Your task to perform on an android device: Open calendar and show me the fourth week of next month Image 0: 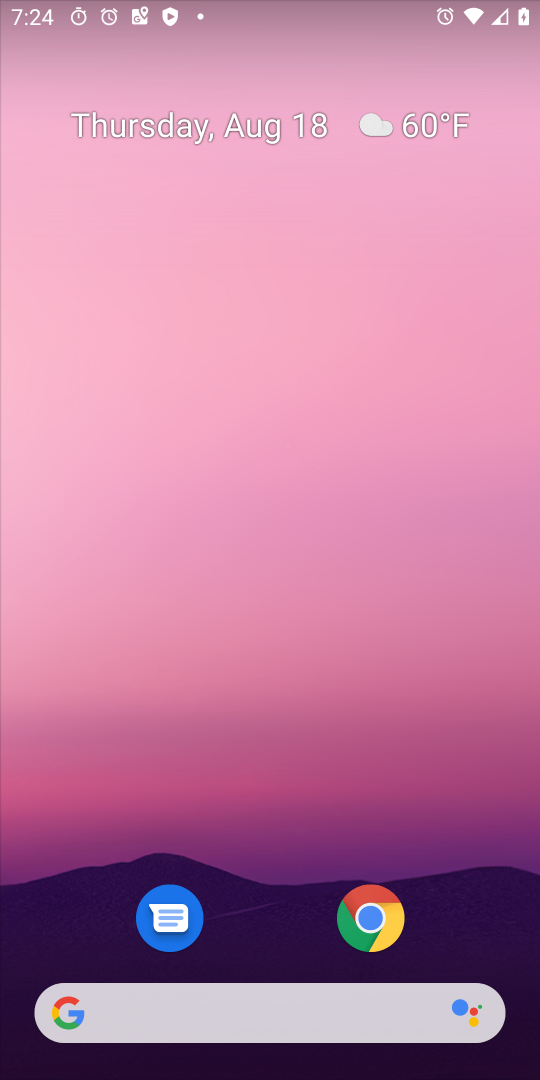
Step 0: press home button
Your task to perform on an android device: Open calendar and show me the fourth week of next month Image 1: 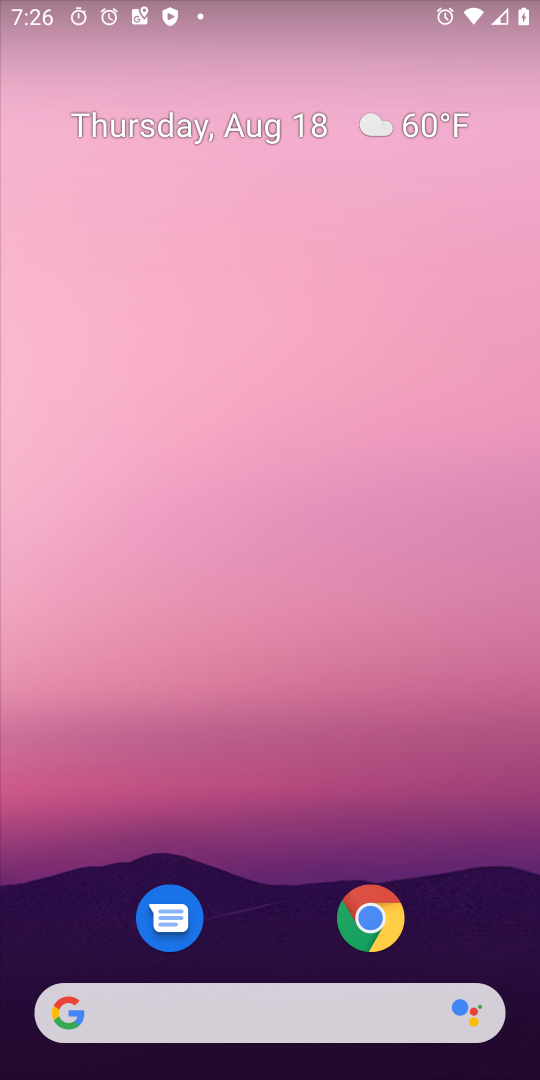
Step 1: drag from (268, 935) to (322, 57)
Your task to perform on an android device: Open calendar and show me the fourth week of next month Image 2: 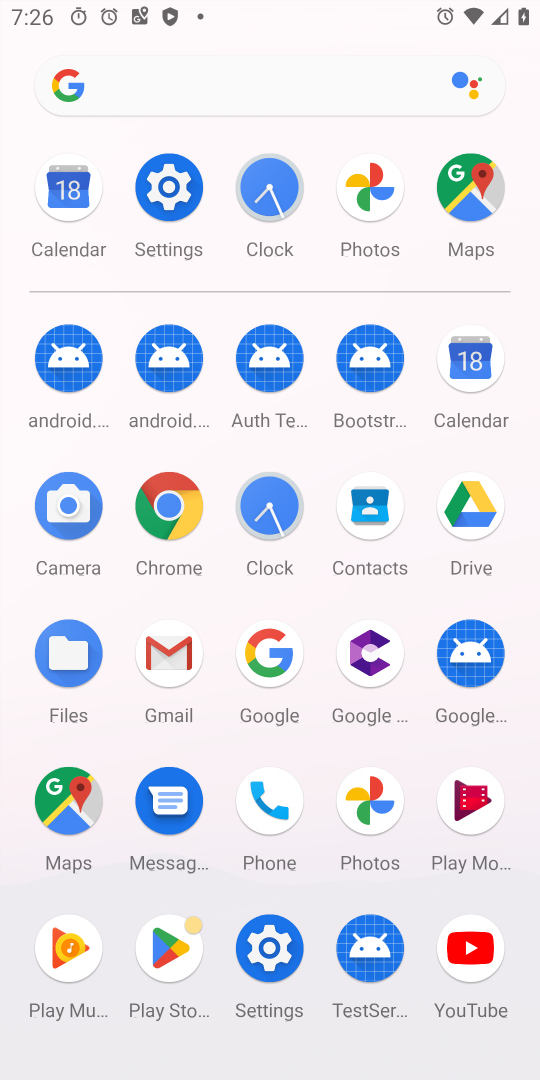
Step 2: click (74, 193)
Your task to perform on an android device: Open calendar and show me the fourth week of next month Image 3: 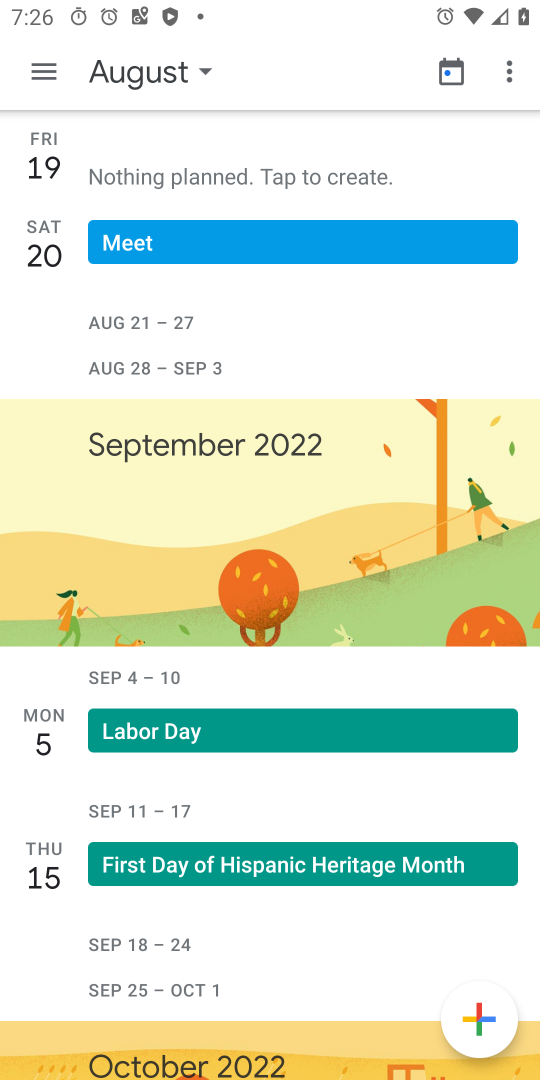
Step 3: click (178, 76)
Your task to perform on an android device: Open calendar and show me the fourth week of next month Image 4: 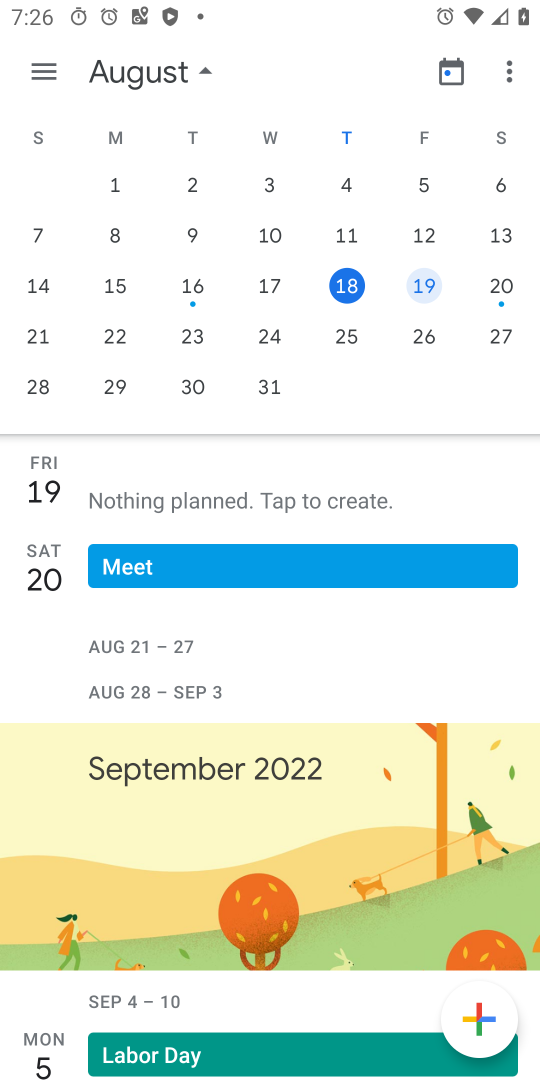
Step 4: drag from (456, 316) to (52, 254)
Your task to perform on an android device: Open calendar and show me the fourth week of next month Image 5: 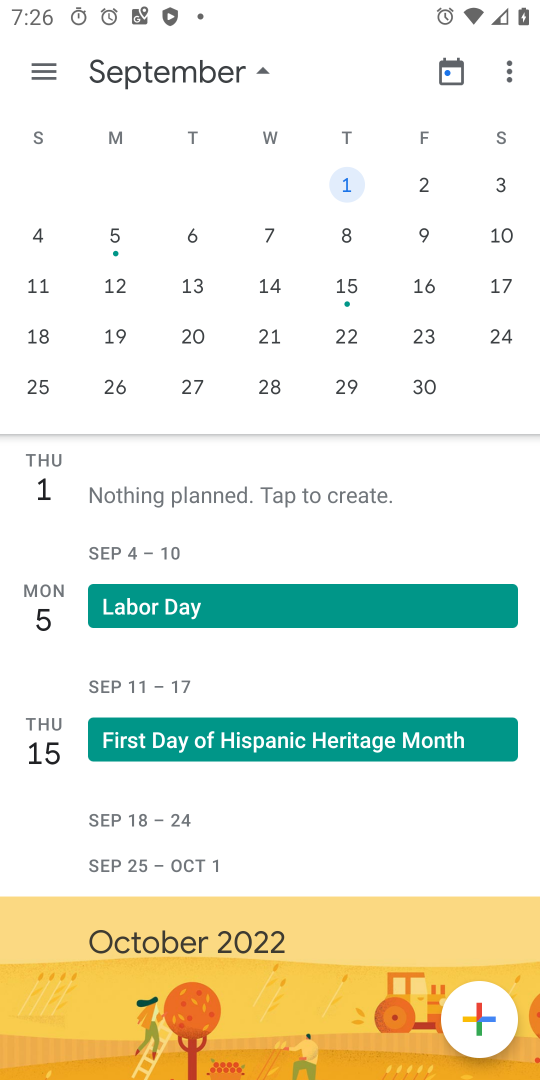
Step 5: click (501, 337)
Your task to perform on an android device: Open calendar and show me the fourth week of next month Image 6: 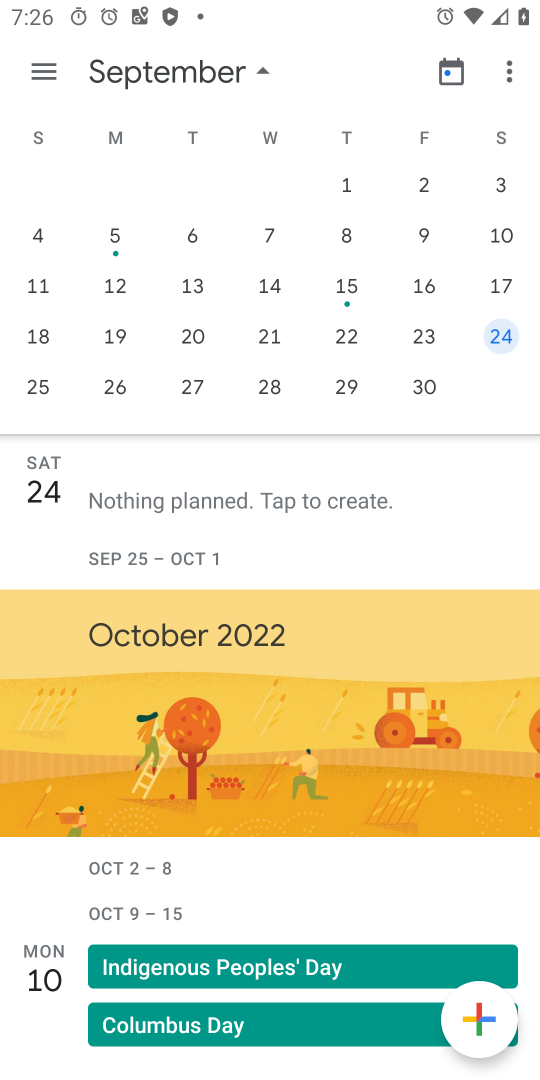
Step 6: click (24, 389)
Your task to perform on an android device: Open calendar and show me the fourth week of next month Image 7: 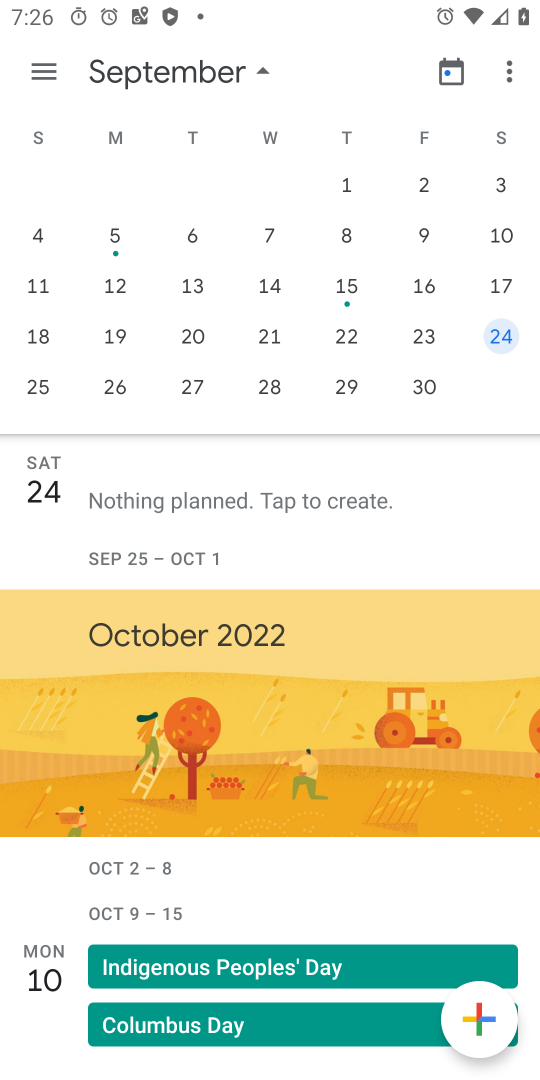
Step 7: click (121, 388)
Your task to perform on an android device: Open calendar and show me the fourth week of next month Image 8: 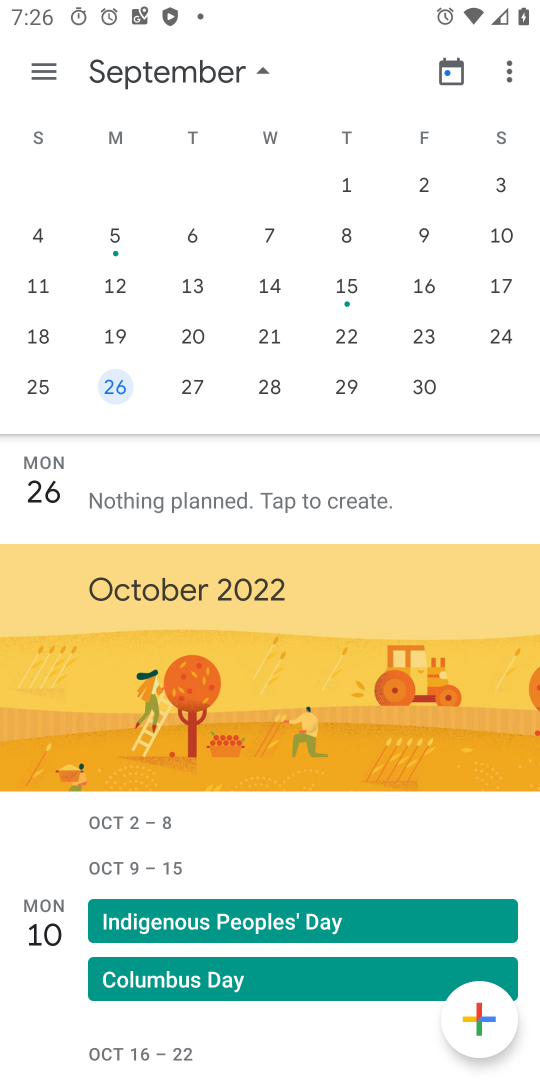
Step 8: click (189, 390)
Your task to perform on an android device: Open calendar and show me the fourth week of next month Image 9: 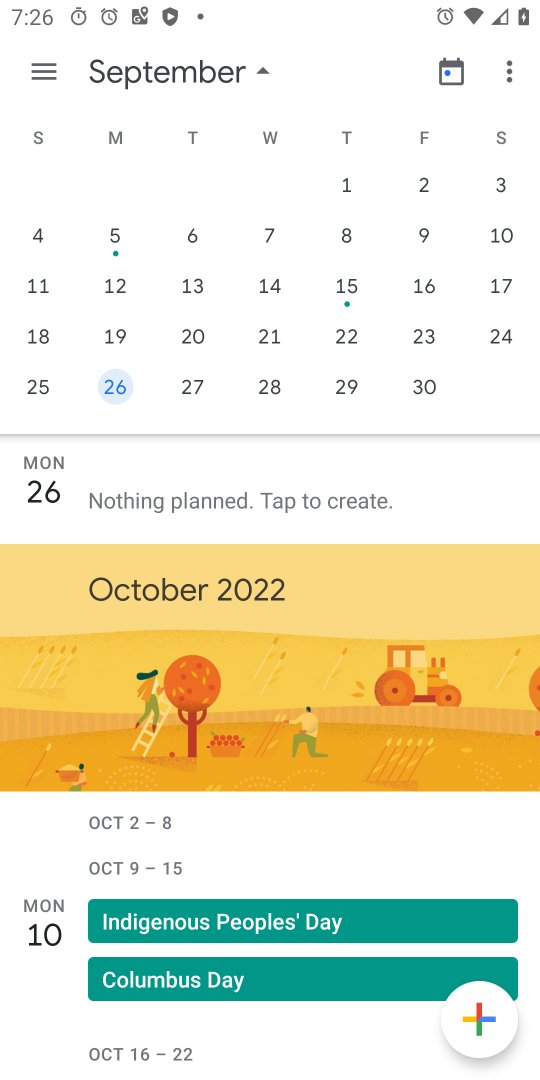
Step 9: click (271, 389)
Your task to perform on an android device: Open calendar and show me the fourth week of next month Image 10: 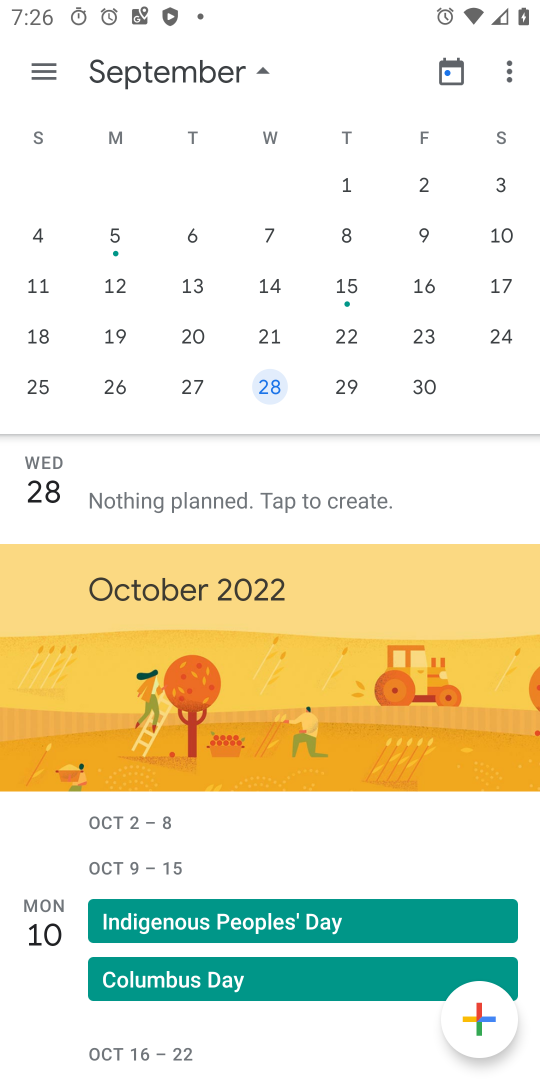
Step 10: click (335, 386)
Your task to perform on an android device: Open calendar and show me the fourth week of next month Image 11: 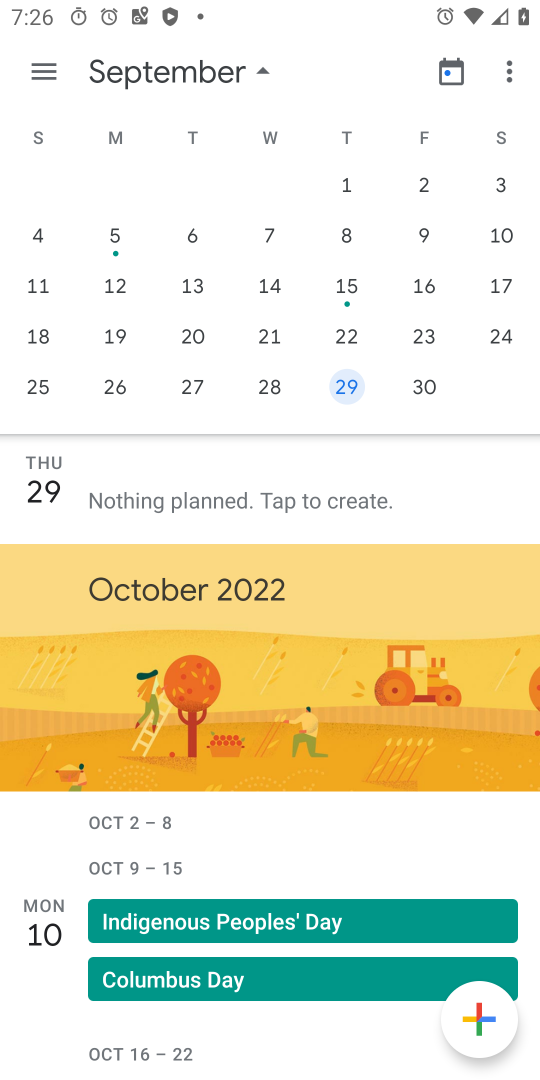
Step 11: click (425, 390)
Your task to perform on an android device: Open calendar and show me the fourth week of next month Image 12: 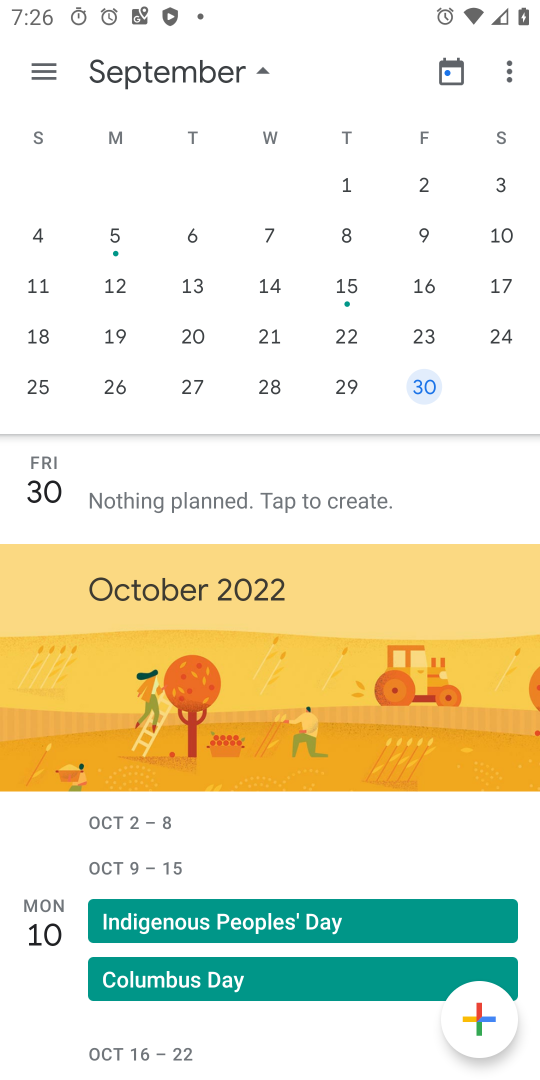
Step 12: task complete